Your task to perform on an android device: turn on priority inbox in the gmail app Image 0: 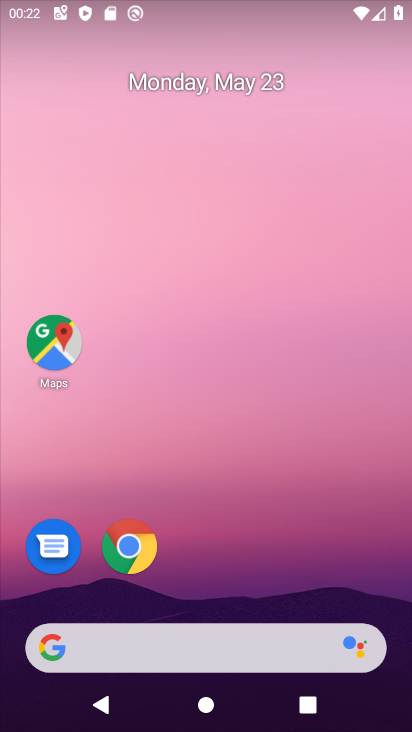
Step 0: drag from (204, 589) to (275, 185)
Your task to perform on an android device: turn on priority inbox in the gmail app Image 1: 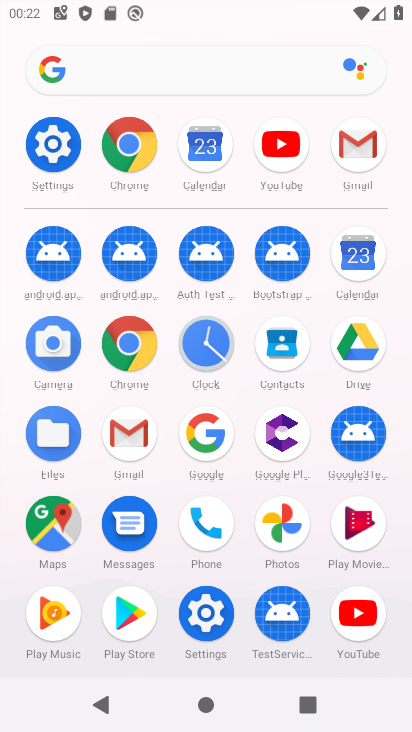
Step 1: click (121, 431)
Your task to perform on an android device: turn on priority inbox in the gmail app Image 2: 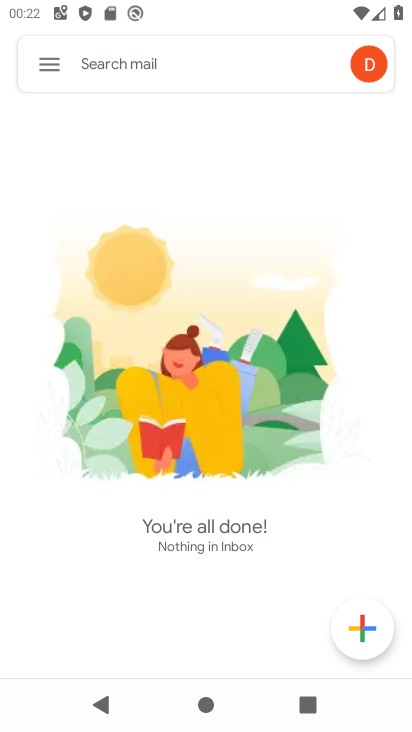
Step 2: click (42, 73)
Your task to perform on an android device: turn on priority inbox in the gmail app Image 3: 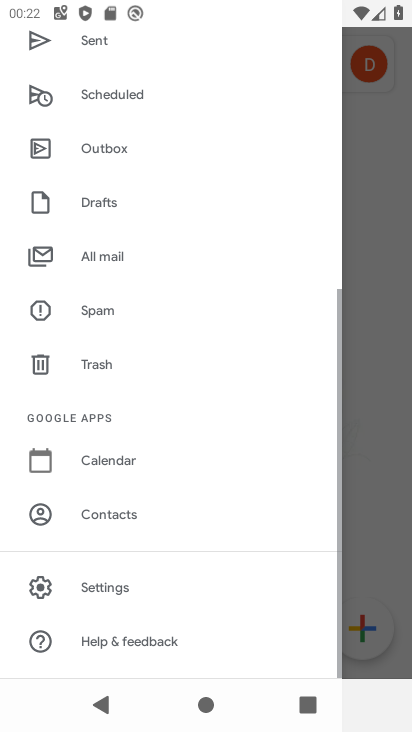
Step 3: drag from (121, 558) to (262, 100)
Your task to perform on an android device: turn on priority inbox in the gmail app Image 4: 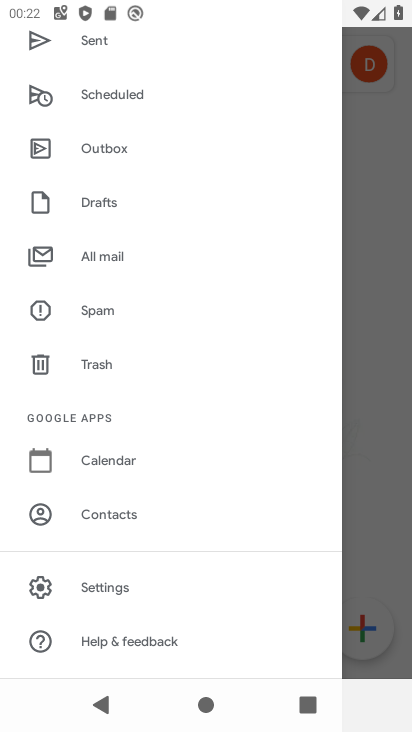
Step 4: click (95, 584)
Your task to perform on an android device: turn on priority inbox in the gmail app Image 5: 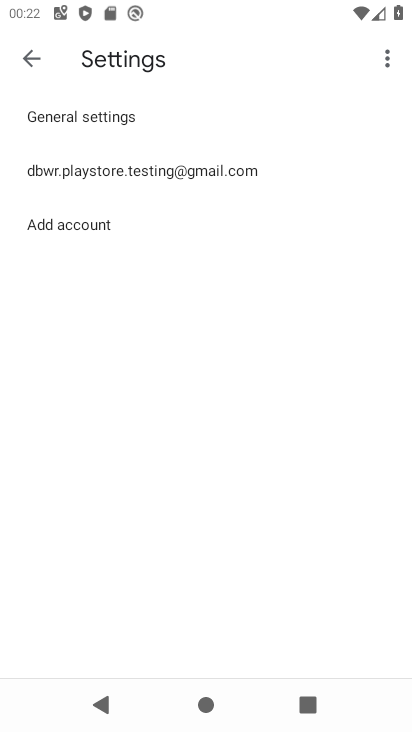
Step 5: drag from (270, 664) to (302, 265)
Your task to perform on an android device: turn on priority inbox in the gmail app Image 6: 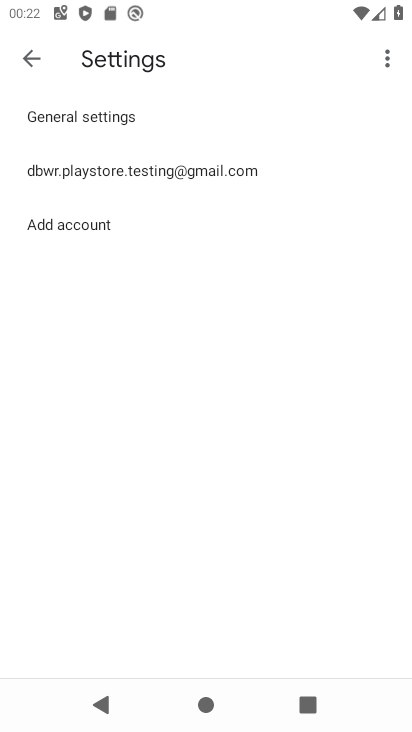
Step 6: click (175, 173)
Your task to perform on an android device: turn on priority inbox in the gmail app Image 7: 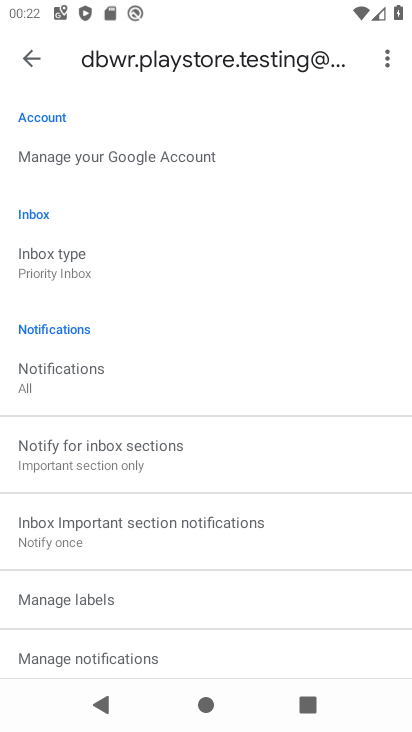
Step 7: click (109, 269)
Your task to perform on an android device: turn on priority inbox in the gmail app Image 8: 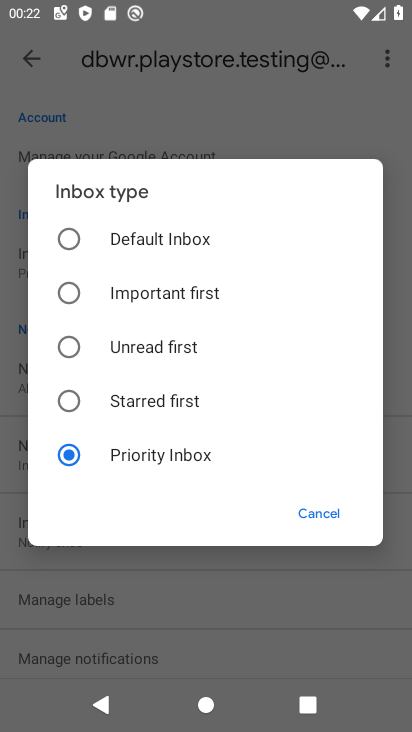
Step 8: click (117, 437)
Your task to perform on an android device: turn on priority inbox in the gmail app Image 9: 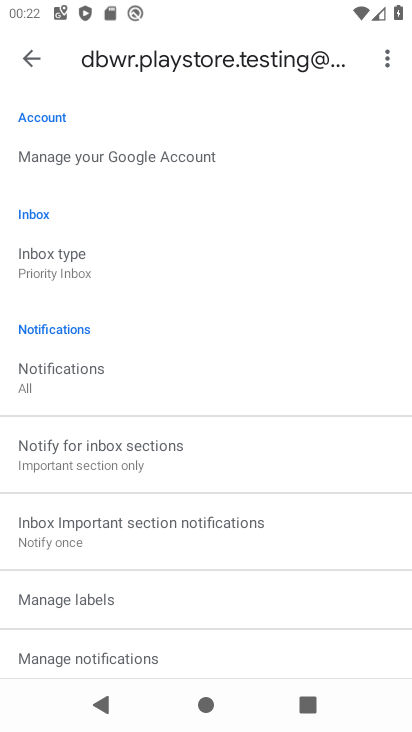
Step 9: task complete